Your task to perform on an android device: turn off javascript in the chrome app Image 0: 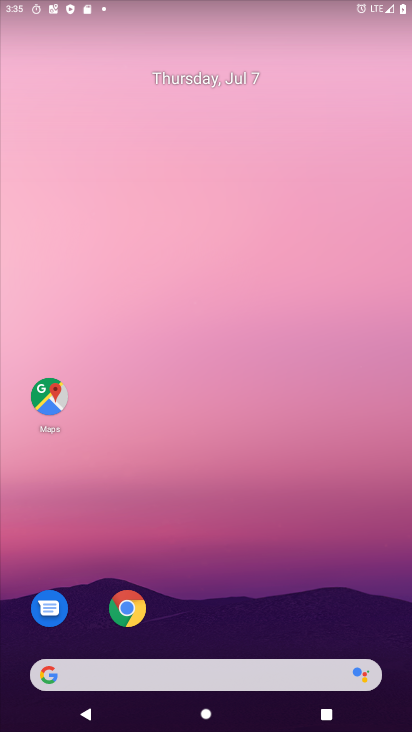
Step 0: click (125, 609)
Your task to perform on an android device: turn off javascript in the chrome app Image 1: 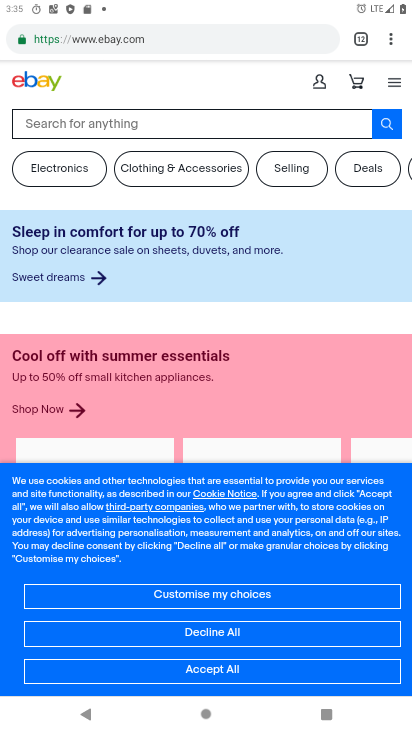
Step 1: click (389, 40)
Your task to perform on an android device: turn off javascript in the chrome app Image 2: 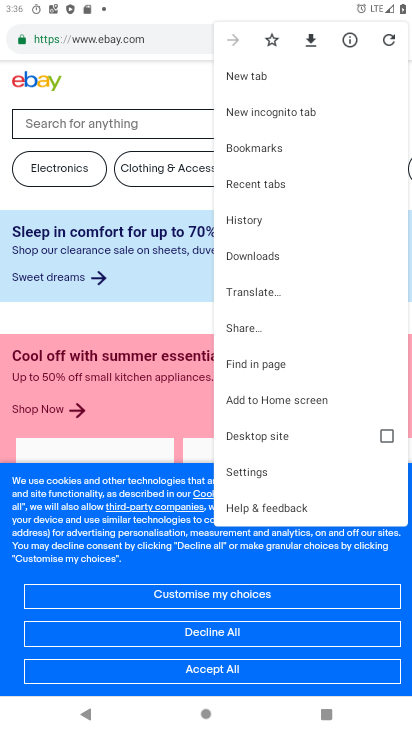
Step 2: click (247, 470)
Your task to perform on an android device: turn off javascript in the chrome app Image 3: 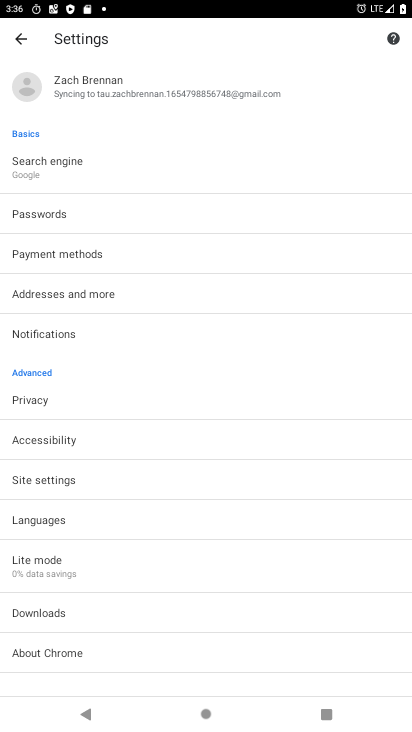
Step 3: click (53, 479)
Your task to perform on an android device: turn off javascript in the chrome app Image 4: 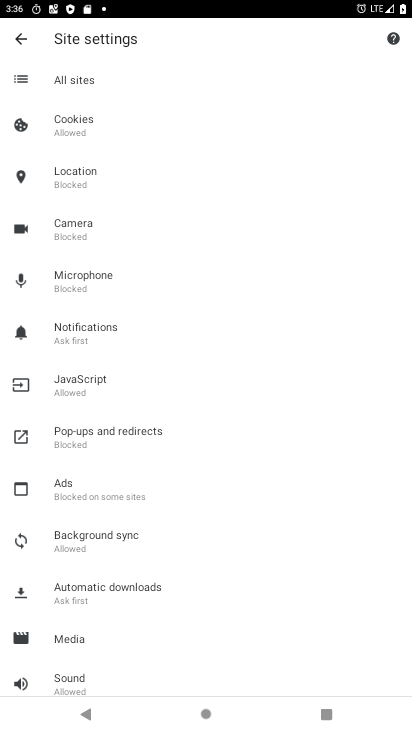
Step 4: click (83, 381)
Your task to perform on an android device: turn off javascript in the chrome app Image 5: 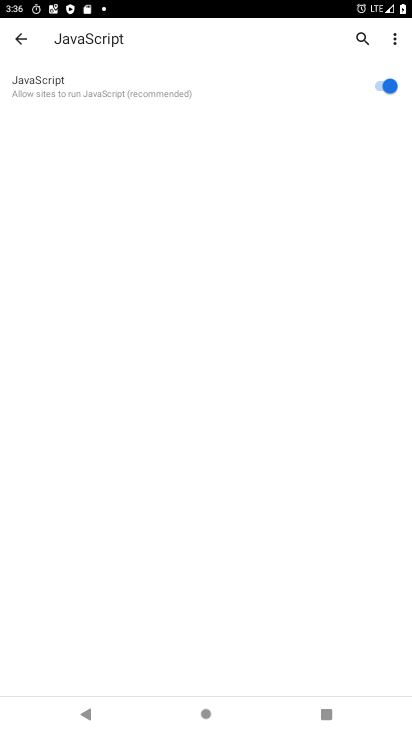
Step 5: click (382, 84)
Your task to perform on an android device: turn off javascript in the chrome app Image 6: 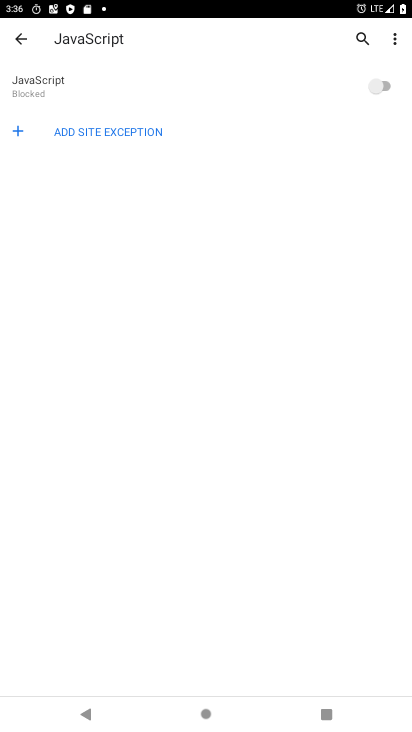
Step 6: task complete